Your task to perform on an android device: toggle location history Image 0: 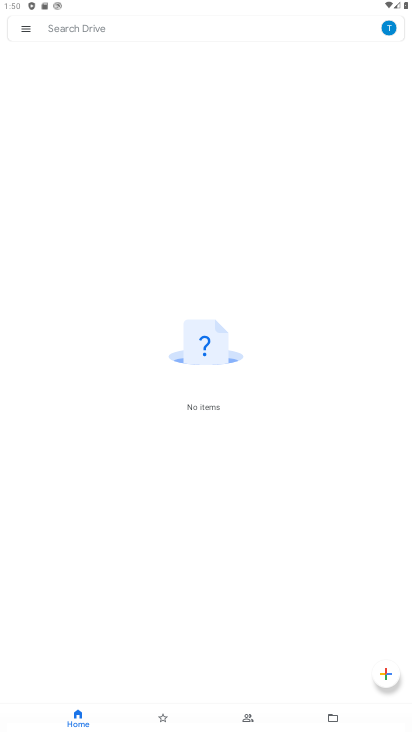
Step 0: press home button
Your task to perform on an android device: toggle location history Image 1: 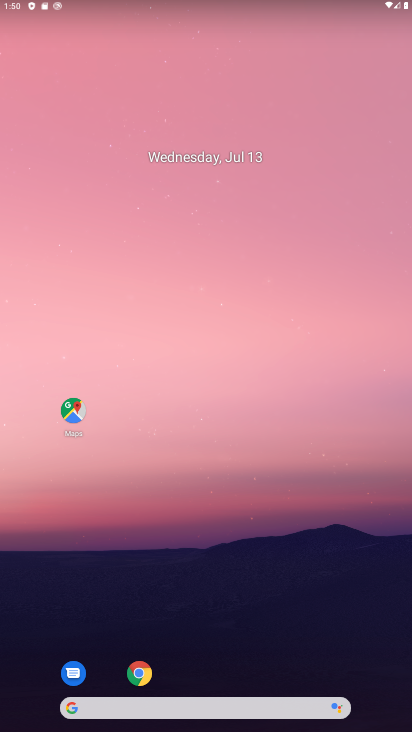
Step 1: click (71, 411)
Your task to perform on an android device: toggle location history Image 2: 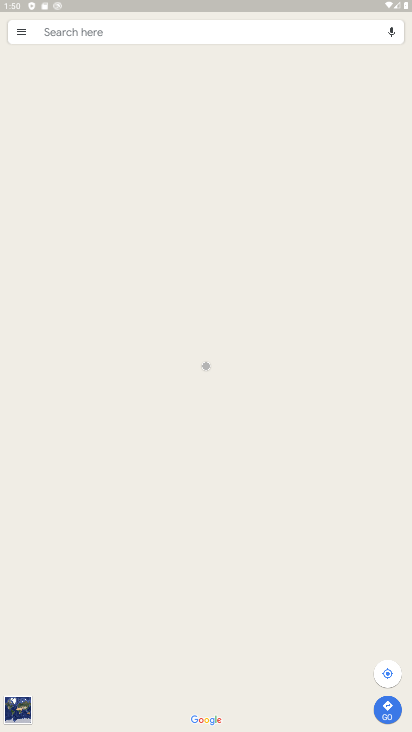
Step 2: click (16, 30)
Your task to perform on an android device: toggle location history Image 3: 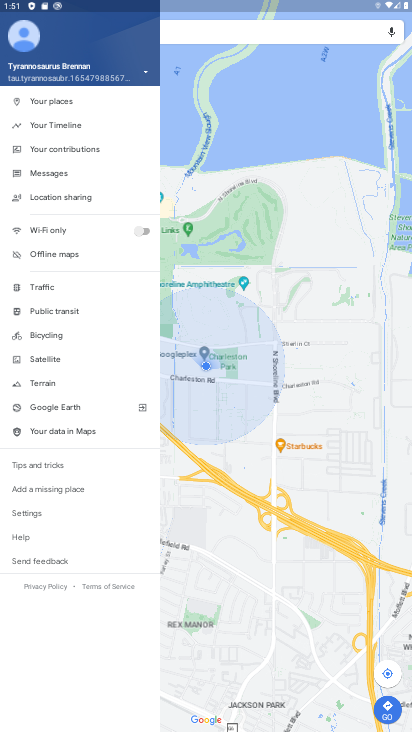
Step 3: click (21, 31)
Your task to perform on an android device: toggle location history Image 4: 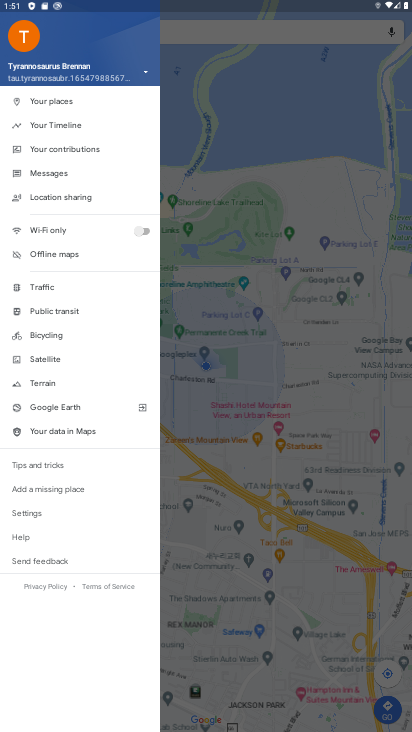
Step 4: click (44, 120)
Your task to perform on an android device: toggle location history Image 5: 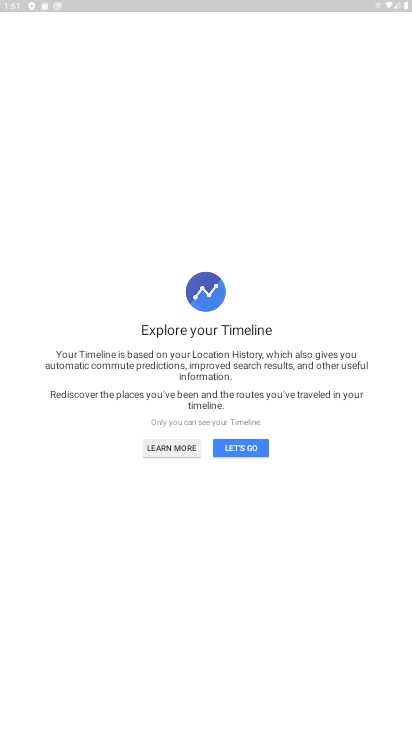
Step 5: click (233, 445)
Your task to perform on an android device: toggle location history Image 6: 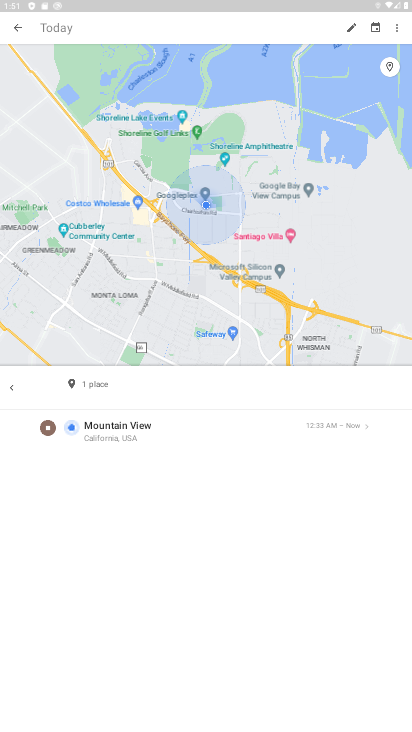
Step 6: click (400, 26)
Your task to perform on an android device: toggle location history Image 7: 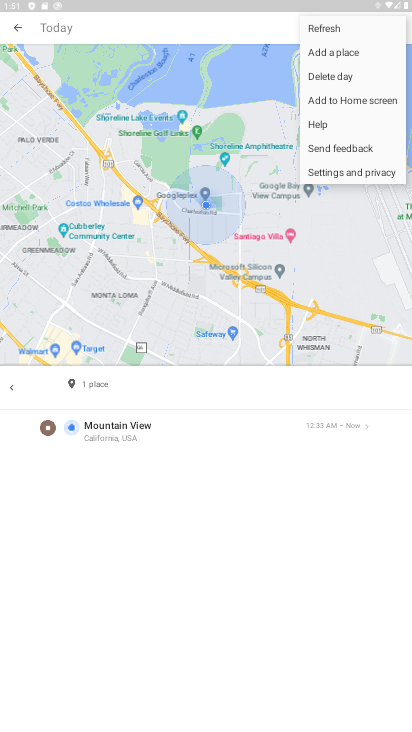
Step 7: click (362, 169)
Your task to perform on an android device: toggle location history Image 8: 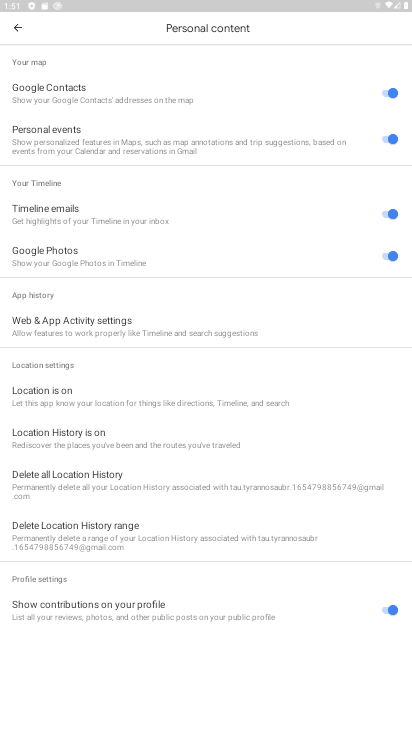
Step 8: click (62, 434)
Your task to perform on an android device: toggle location history Image 9: 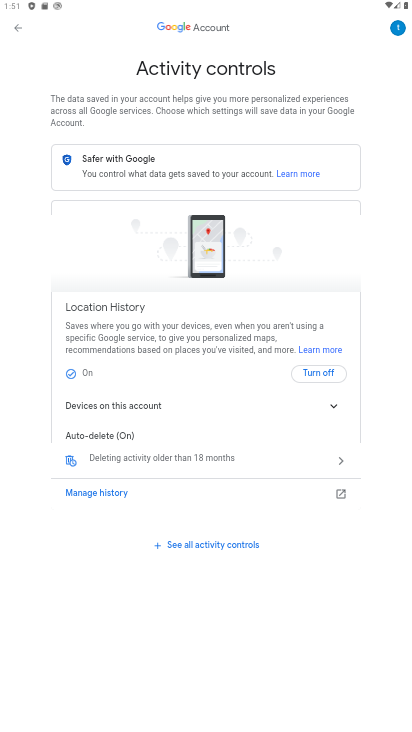
Step 9: click (314, 369)
Your task to perform on an android device: toggle location history Image 10: 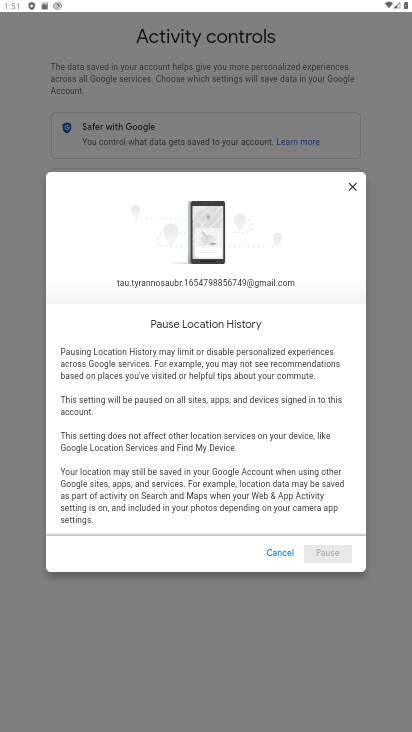
Step 10: drag from (304, 447) to (250, 187)
Your task to perform on an android device: toggle location history Image 11: 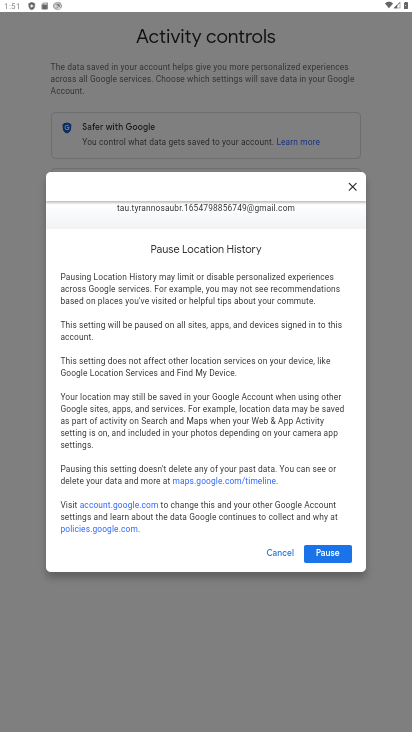
Step 11: click (330, 561)
Your task to perform on an android device: toggle location history Image 12: 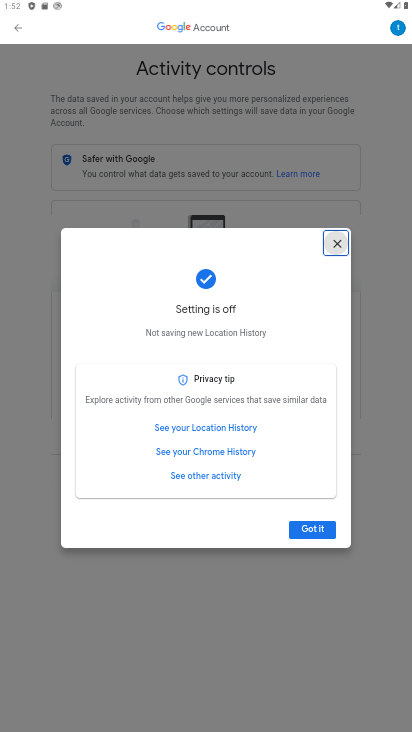
Step 12: click (301, 534)
Your task to perform on an android device: toggle location history Image 13: 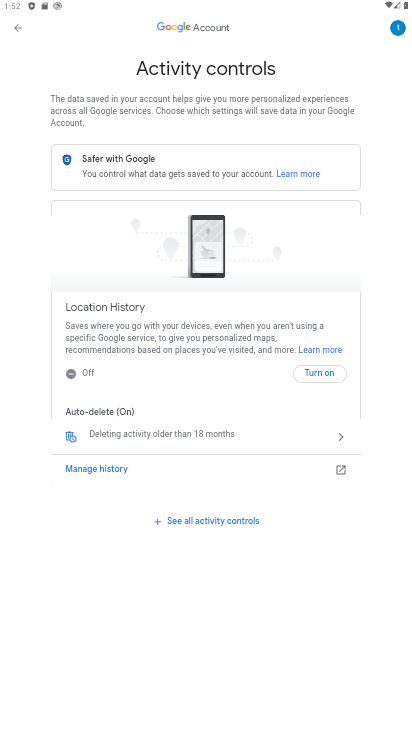
Step 13: task complete